Your task to perform on an android device: Go to sound settings Image 0: 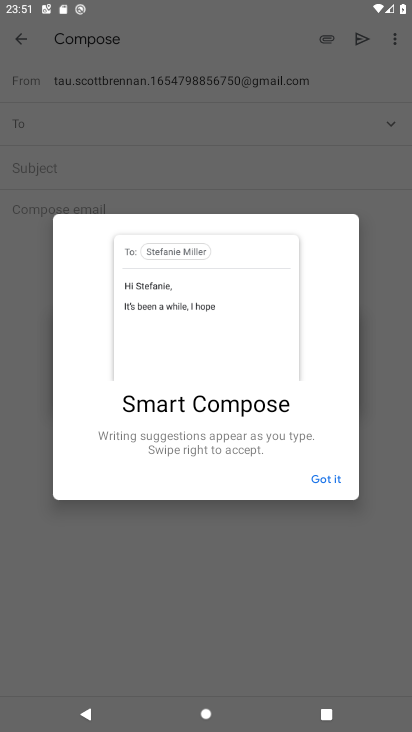
Step 0: press home button
Your task to perform on an android device: Go to sound settings Image 1: 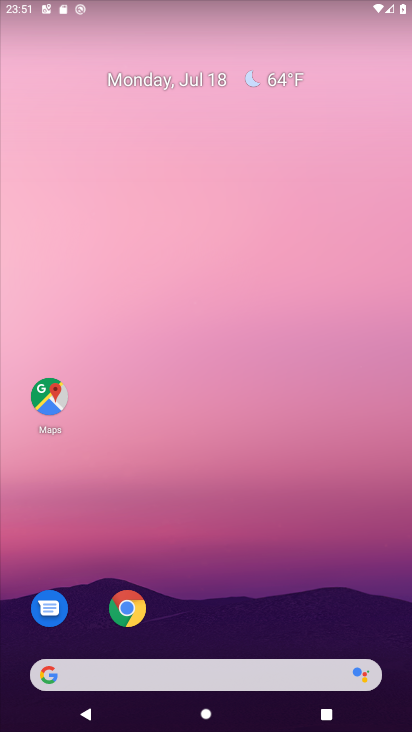
Step 1: drag from (278, 444) to (227, 20)
Your task to perform on an android device: Go to sound settings Image 2: 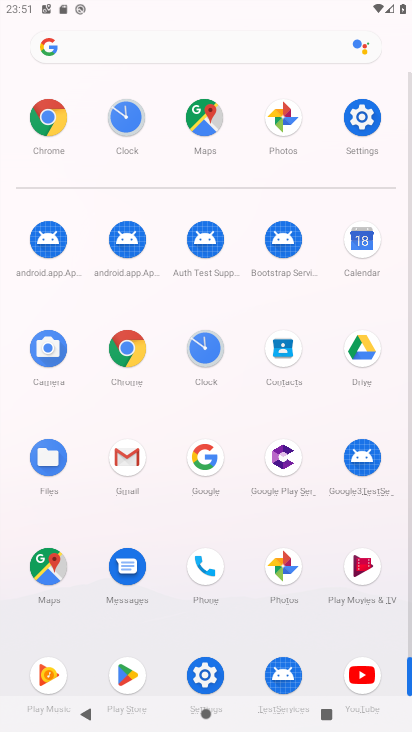
Step 2: drag from (254, 199) to (250, 84)
Your task to perform on an android device: Go to sound settings Image 3: 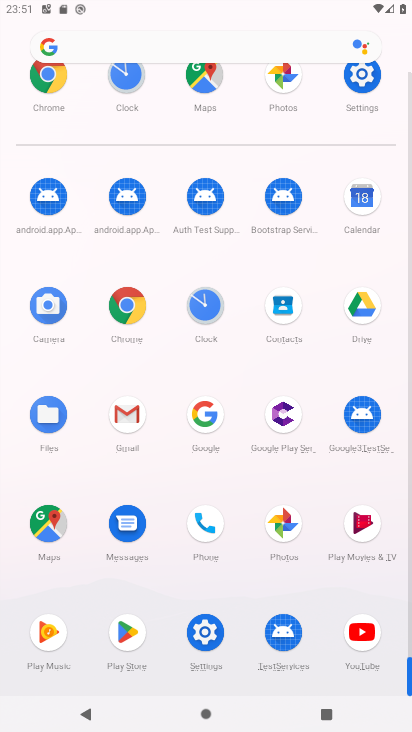
Step 3: click (219, 632)
Your task to perform on an android device: Go to sound settings Image 4: 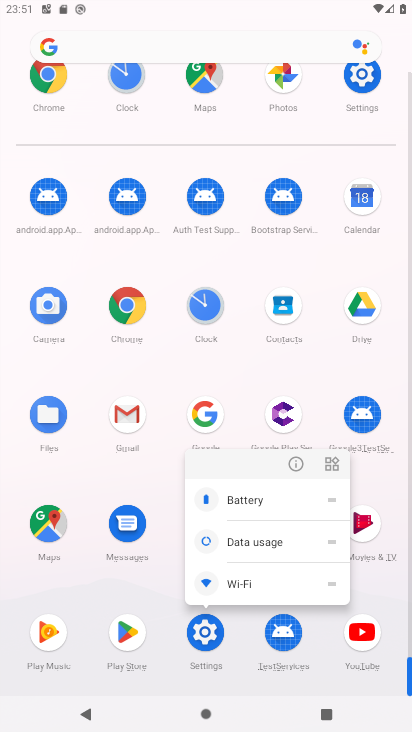
Step 4: click (209, 633)
Your task to perform on an android device: Go to sound settings Image 5: 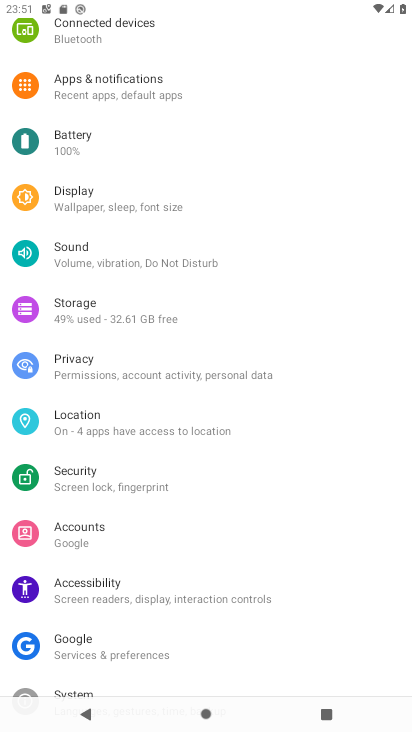
Step 5: click (145, 264)
Your task to perform on an android device: Go to sound settings Image 6: 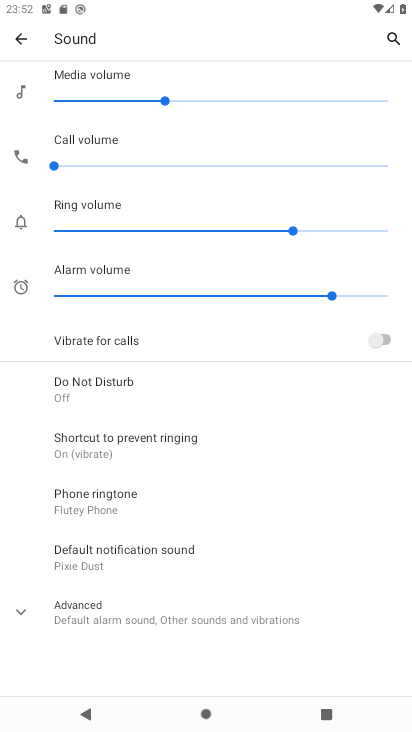
Step 6: task complete